Your task to perform on an android device: turn off location Image 0: 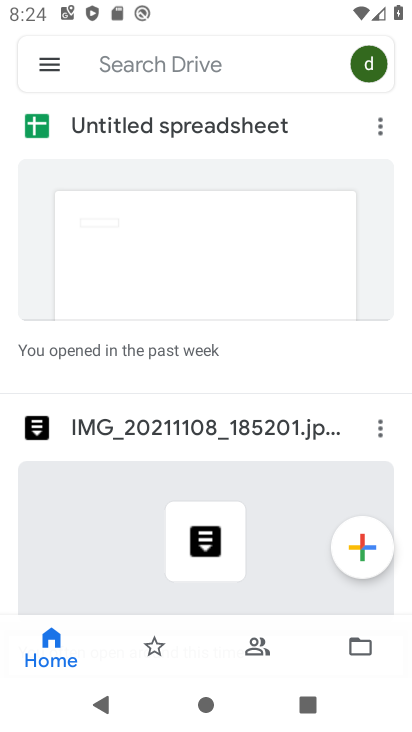
Step 0: press home button
Your task to perform on an android device: turn off location Image 1: 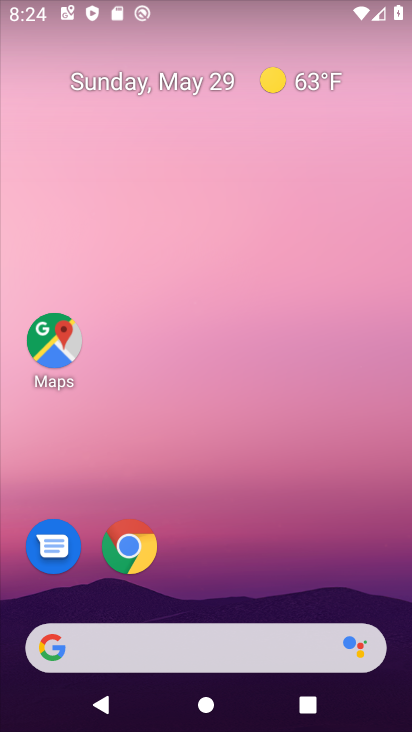
Step 1: drag from (186, 638) to (281, 99)
Your task to perform on an android device: turn off location Image 2: 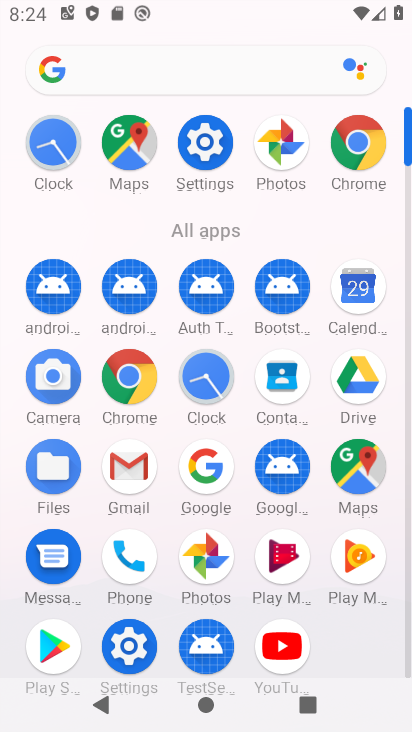
Step 2: click (204, 151)
Your task to perform on an android device: turn off location Image 3: 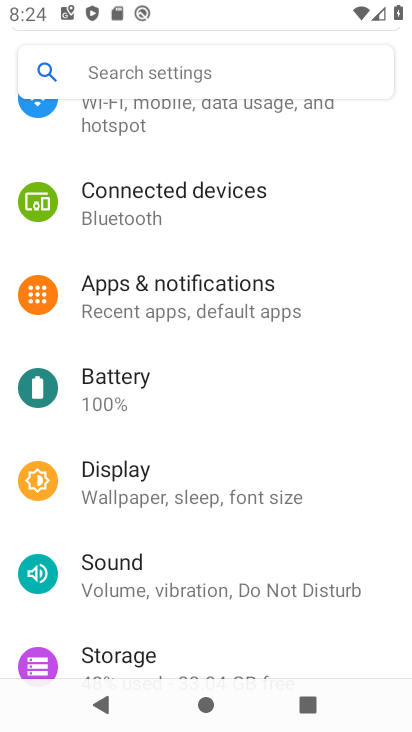
Step 3: drag from (201, 614) to (332, 69)
Your task to perform on an android device: turn off location Image 4: 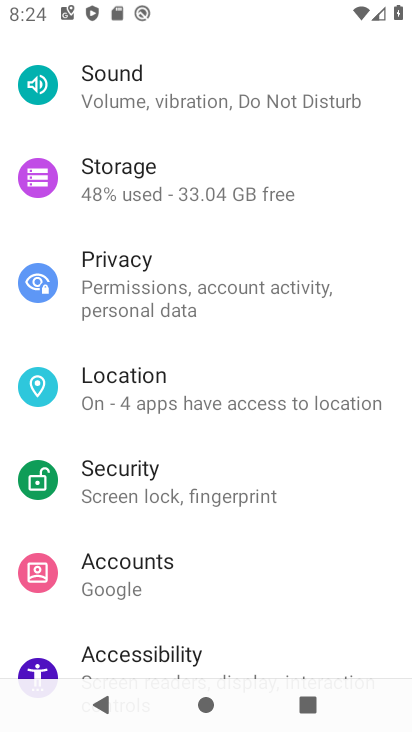
Step 4: click (143, 378)
Your task to perform on an android device: turn off location Image 5: 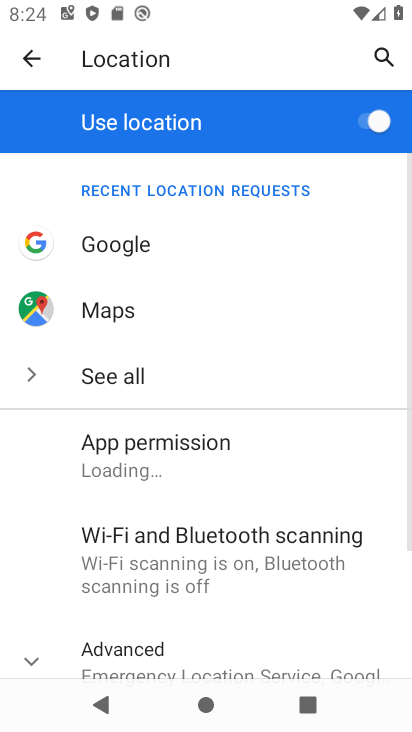
Step 5: click (367, 122)
Your task to perform on an android device: turn off location Image 6: 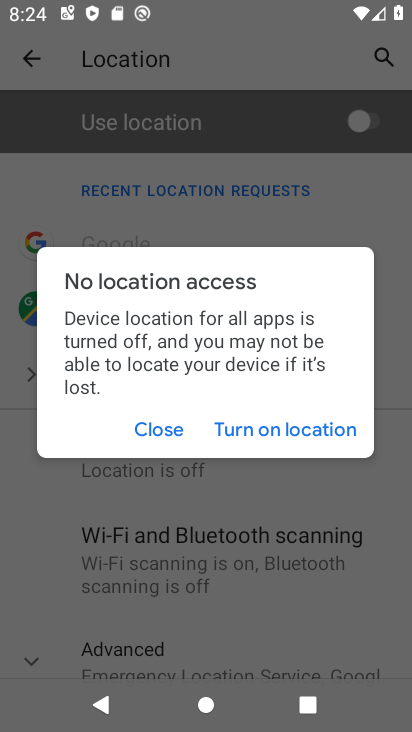
Step 6: click (146, 432)
Your task to perform on an android device: turn off location Image 7: 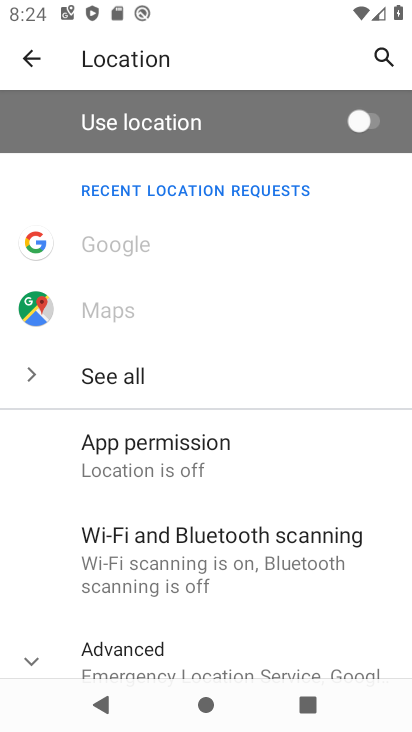
Step 7: task complete